Your task to perform on an android device: open app "VLC for Android" Image 0: 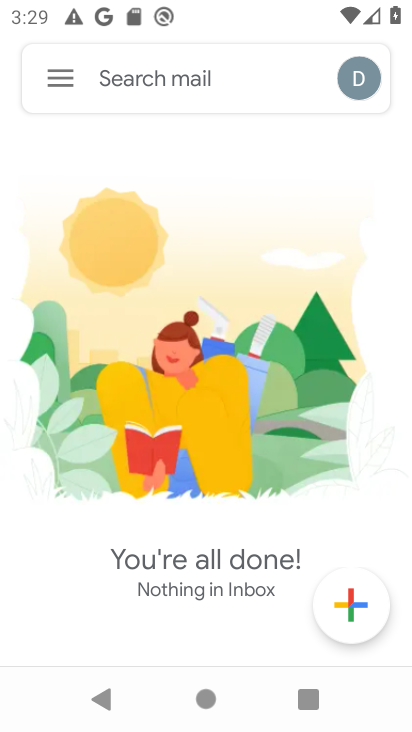
Step 0: press home button
Your task to perform on an android device: open app "VLC for Android" Image 1: 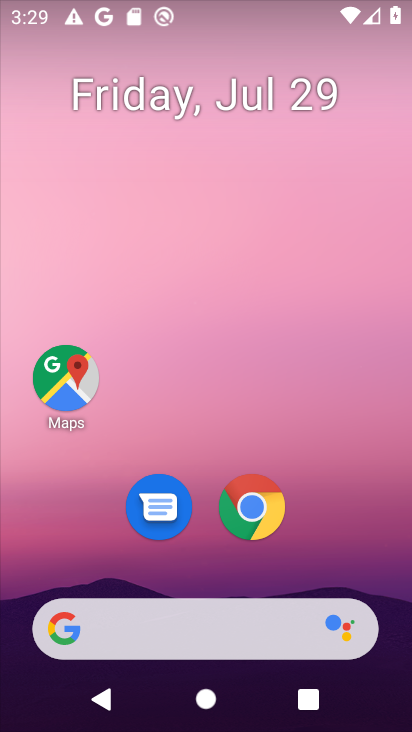
Step 1: click (194, 618)
Your task to perform on an android device: open app "VLC for Android" Image 2: 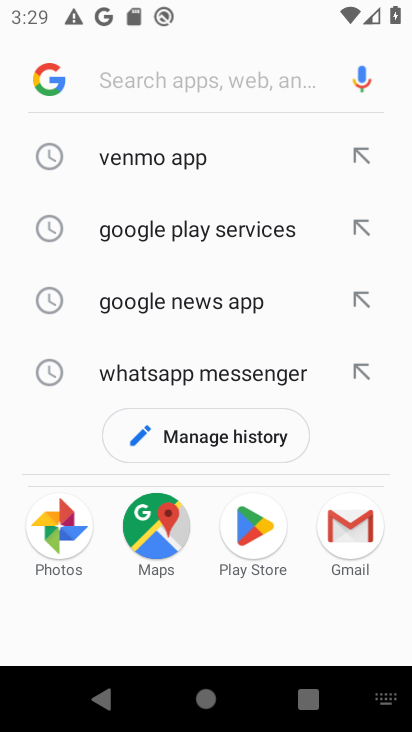
Step 2: type "vlc"
Your task to perform on an android device: open app "VLC for Android" Image 3: 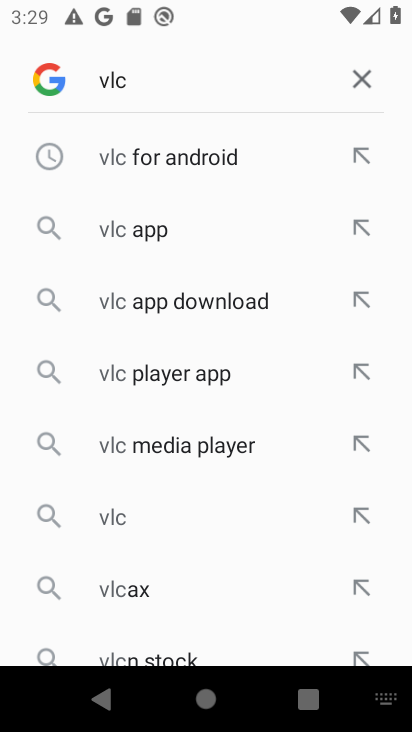
Step 3: click (252, 162)
Your task to perform on an android device: open app "VLC for Android" Image 4: 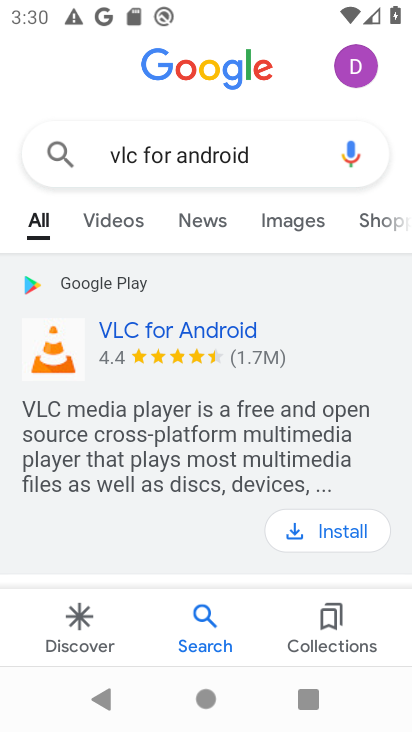
Step 4: click (294, 541)
Your task to perform on an android device: open app "VLC for Android" Image 5: 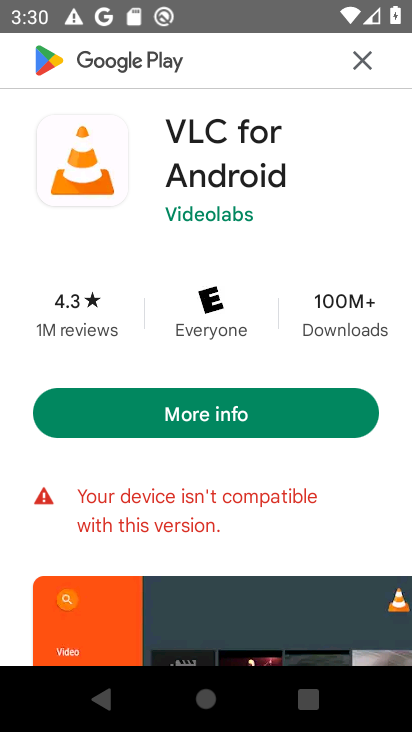
Step 5: task complete